Your task to perform on an android device: Open Maps and search for coffee Image 0: 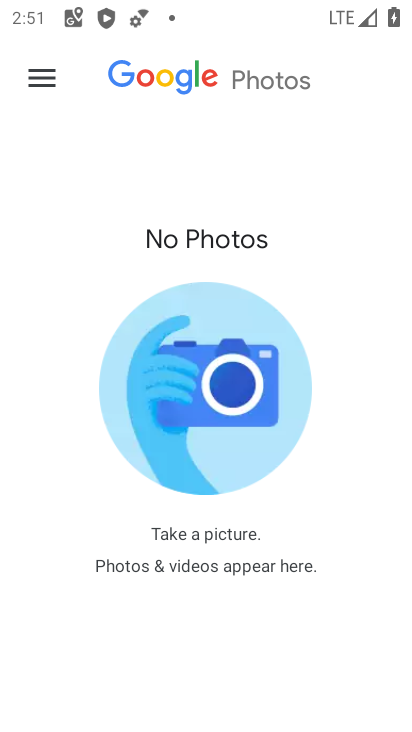
Step 0: press back button
Your task to perform on an android device: Open Maps and search for coffee Image 1: 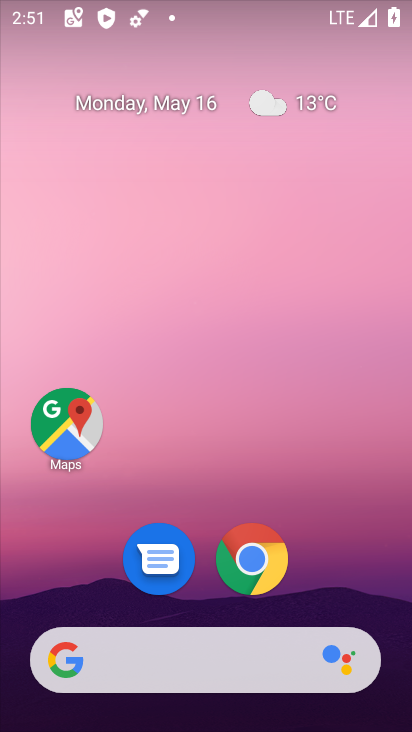
Step 1: click (65, 410)
Your task to perform on an android device: Open Maps and search for coffee Image 2: 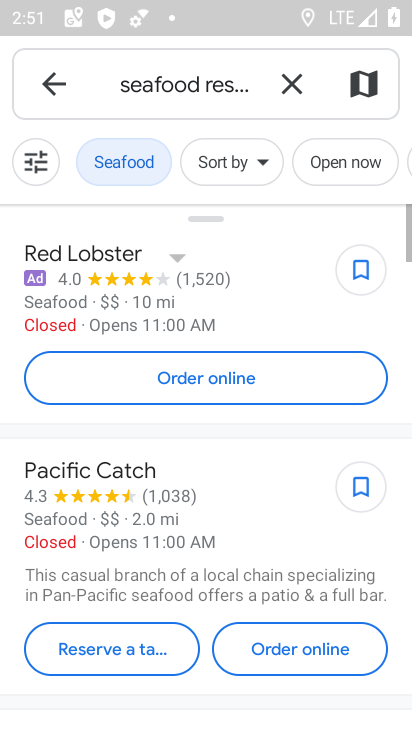
Step 2: click (300, 69)
Your task to perform on an android device: Open Maps and search for coffee Image 3: 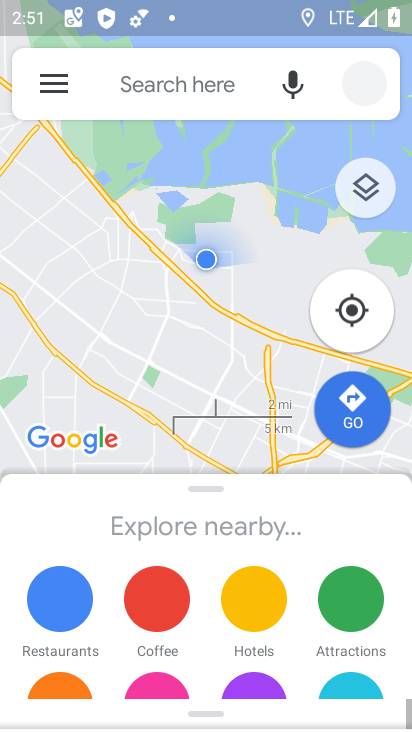
Step 3: click (162, 81)
Your task to perform on an android device: Open Maps and search for coffee Image 4: 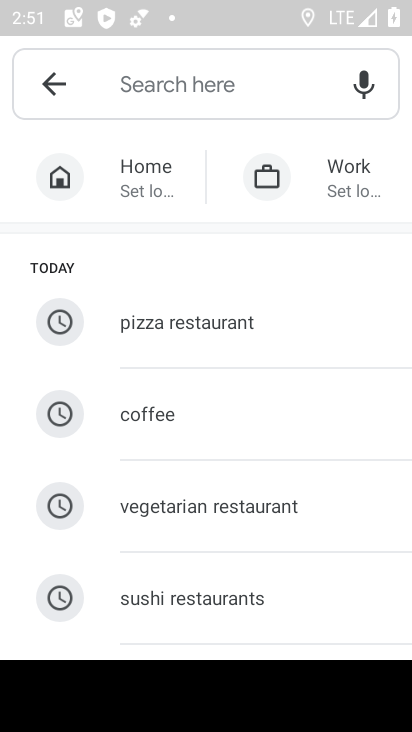
Step 4: type "coffee"
Your task to perform on an android device: Open Maps and search for coffee Image 5: 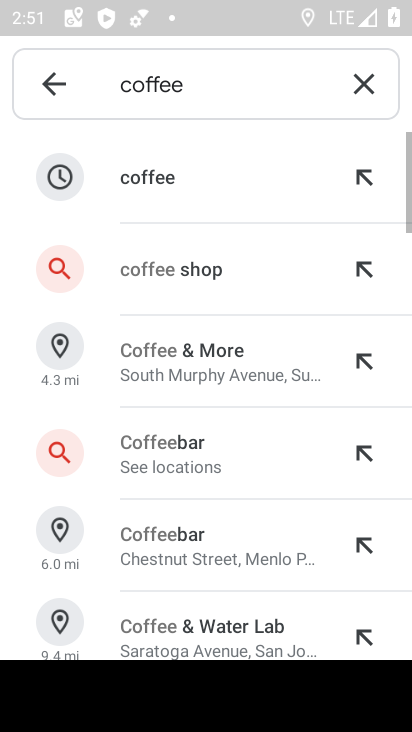
Step 5: click (195, 187)
Your task to perform on an android device: Open Maps and search for coffee Image 6: 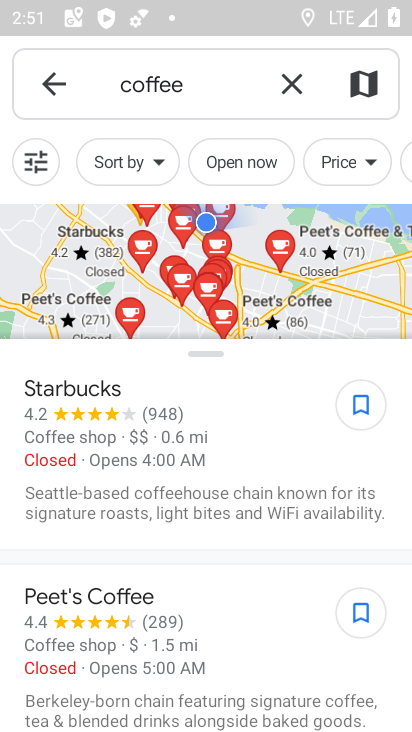
Step 6: task complete